Your task to perform on an android device: add a contact Image 0: 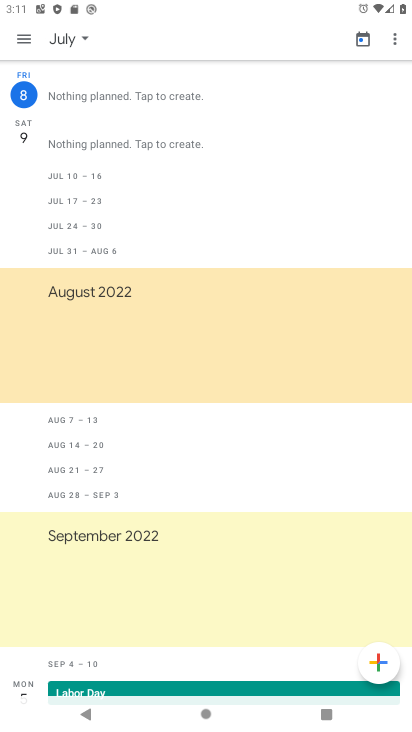
Step 0: press home button
Your task to perform on an android device: add a contact Image 1: 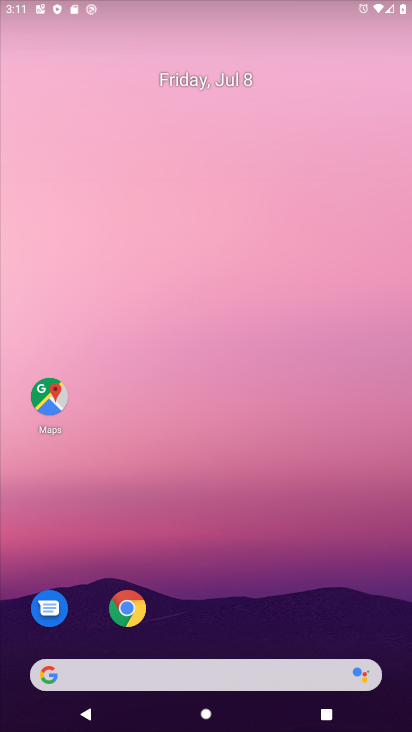
Step 1: drag from (234, 680) to (251, 2)
Your task to perform on an android device: add a contact Image 2: 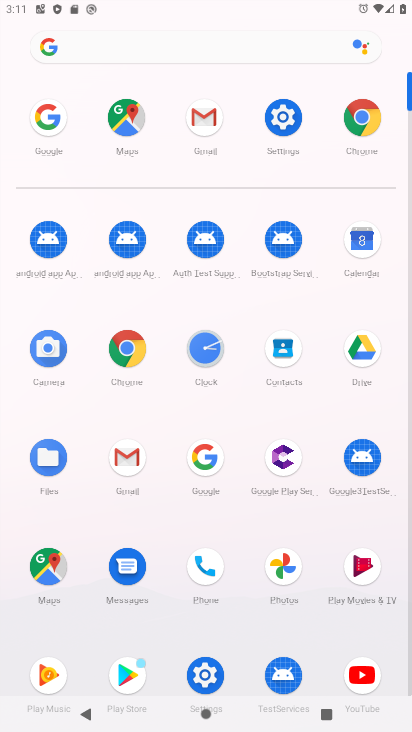
Step 2: click (291, 345)
Your task to perform on an android device: add a contact Image 3: 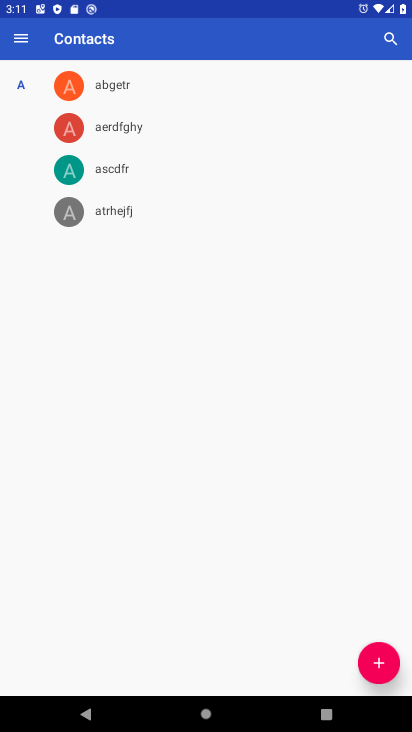
Step 3: click (386, 666)
Your task to perform on an android device: add a contact Image 4: 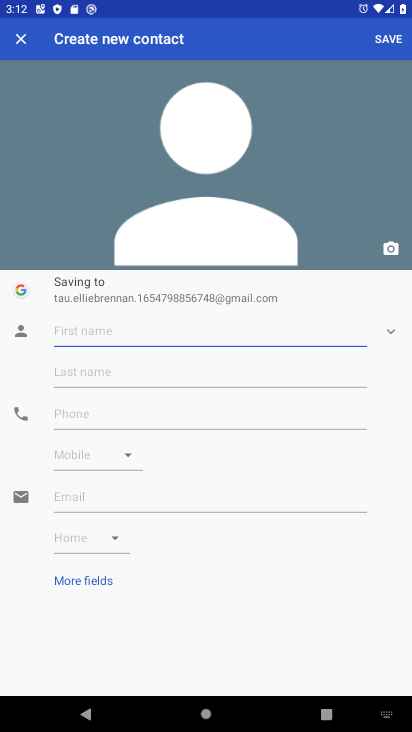
Step 4: type "Vishal"
Your task to perform on an android device: add a contact Image 5: 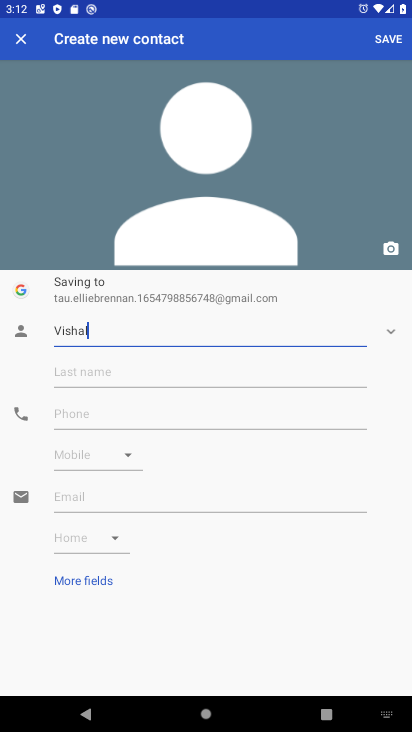
Step 5: click (184, 406)
Your task to perform on an android device: add a contact Image 6: 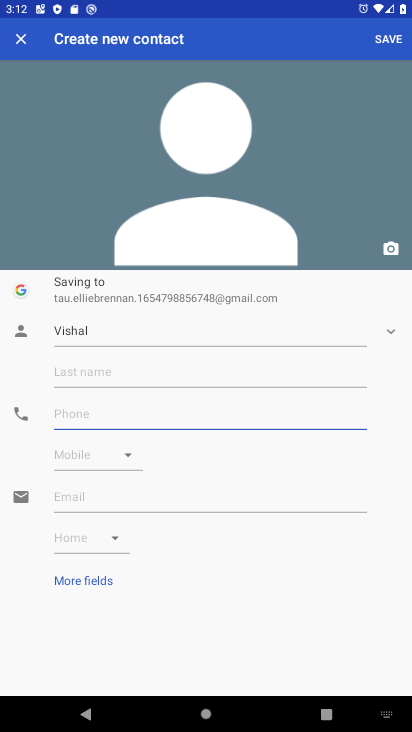
Step 6: type "7006078654"
Your task to perform on an android device: add a contact Image 7: 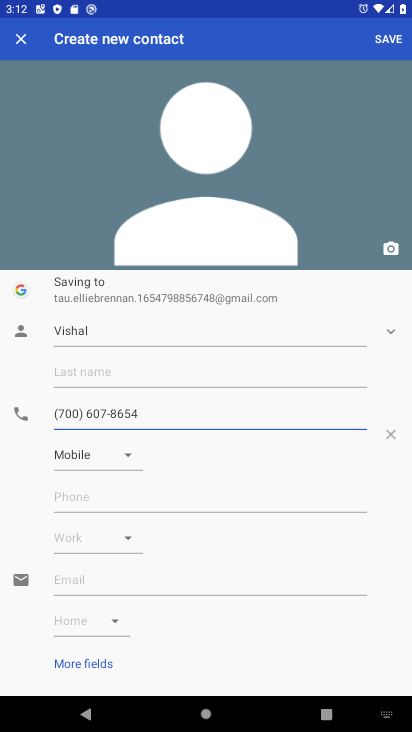
Step 7: click (393, 36)
Your task to perform on an android device: add a contact Image 8: 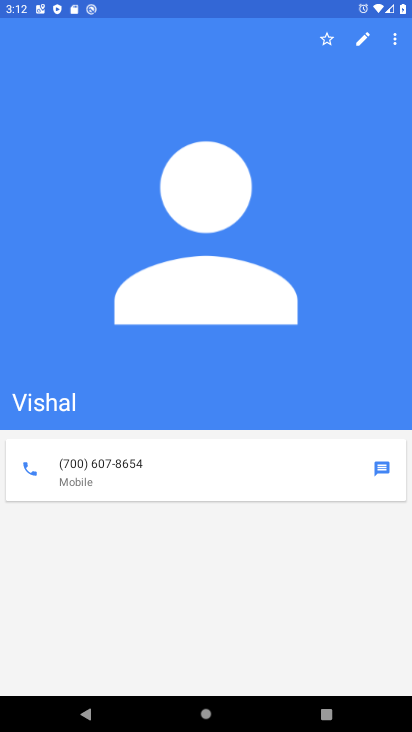
Step 8: task complete